Your task to perform on an android device: delete browsing data in the chrome app Image 0: 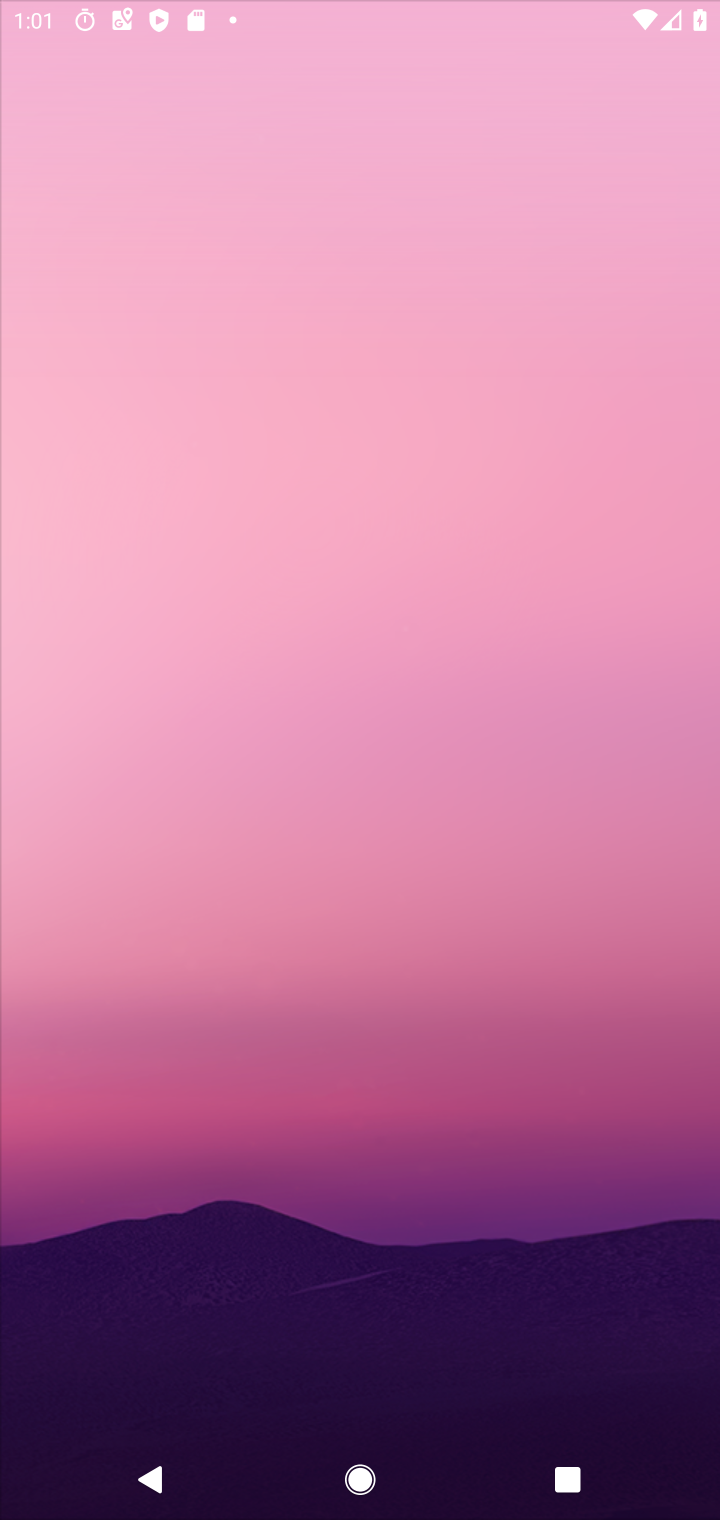
Step 0: press home button
Your task to perform on an android device: delete browsing data in the chrome app Image 1: 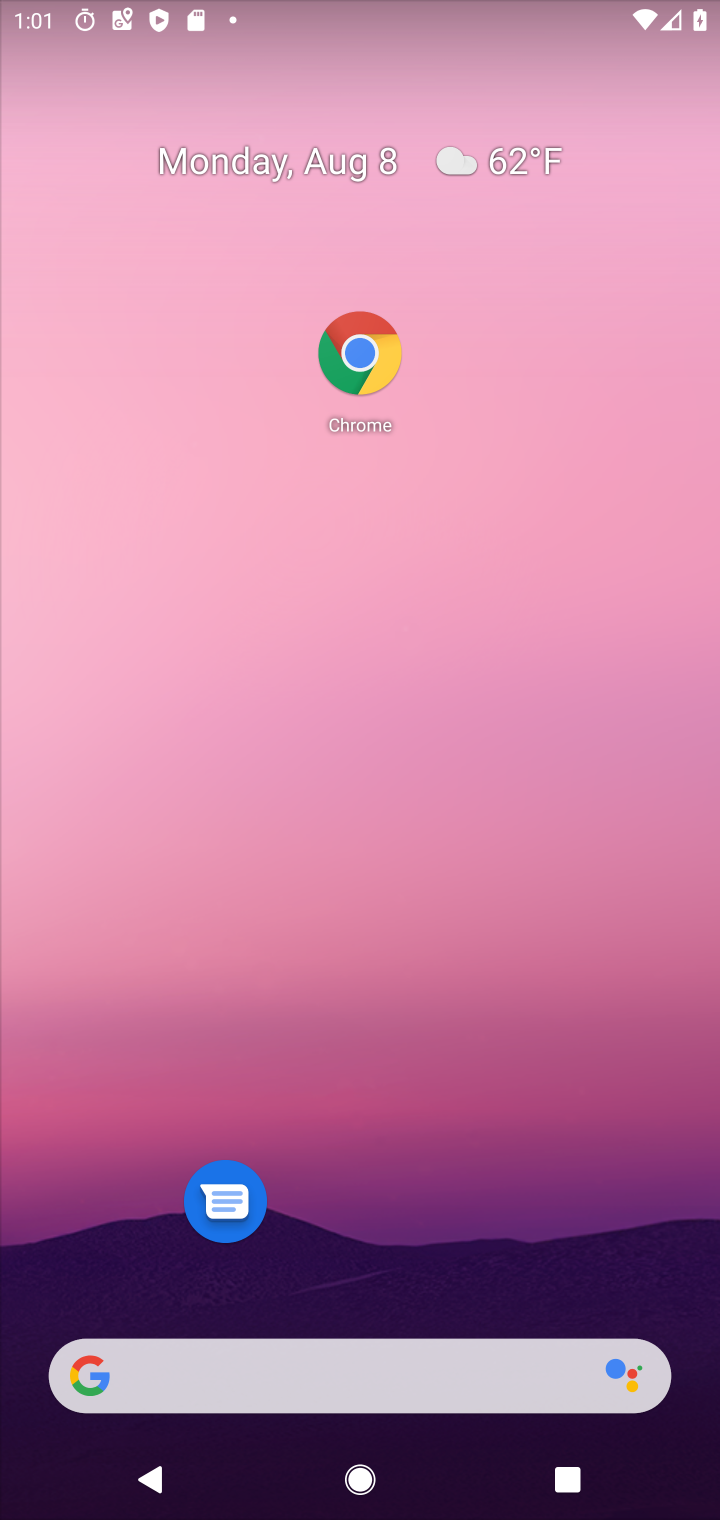
Step 1: drag from (453, 1339) to (316, 403)
Your task to perform on an android device: delete browsing data in the chrome app Image 2: 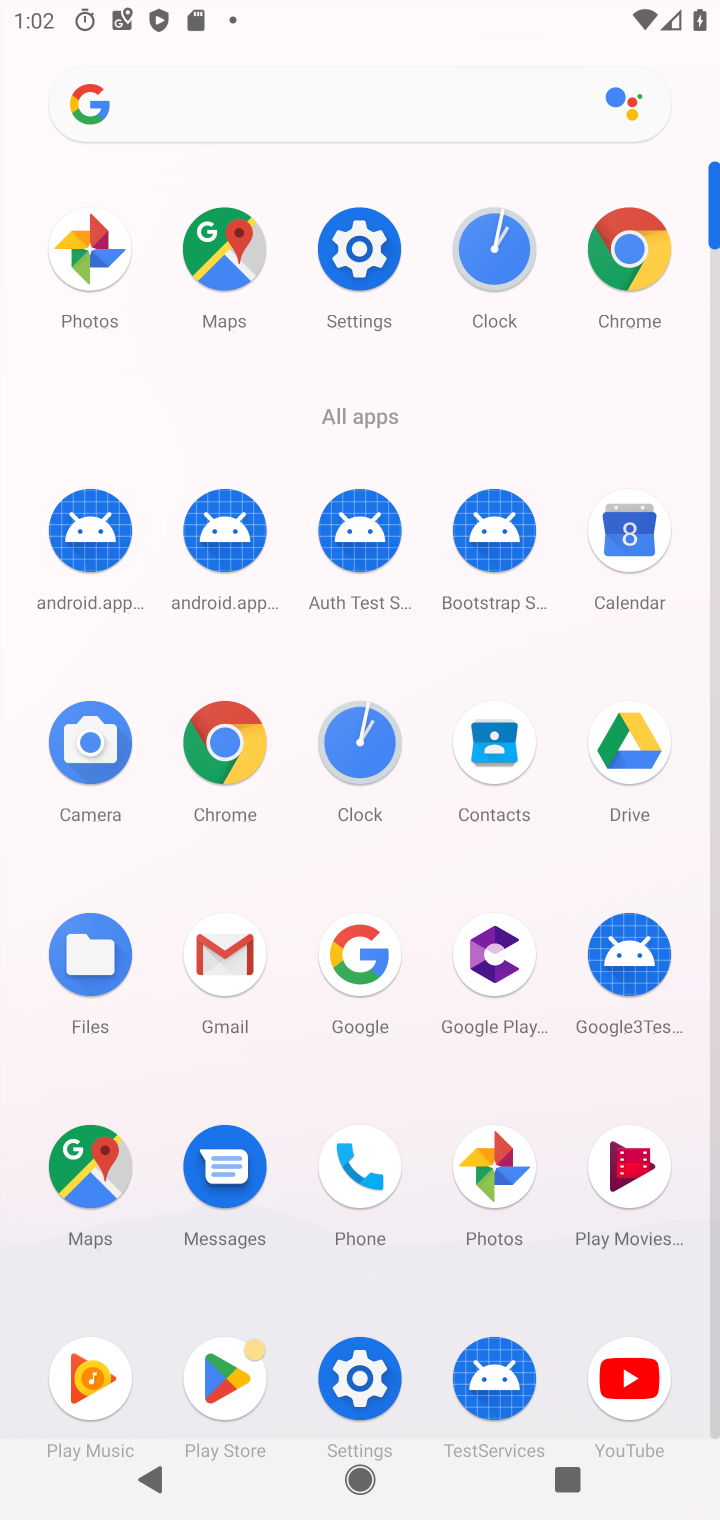
Step 2: click (650, 239)
Your task to perform on an android device: delete browsing data in the chrome app Image 3: 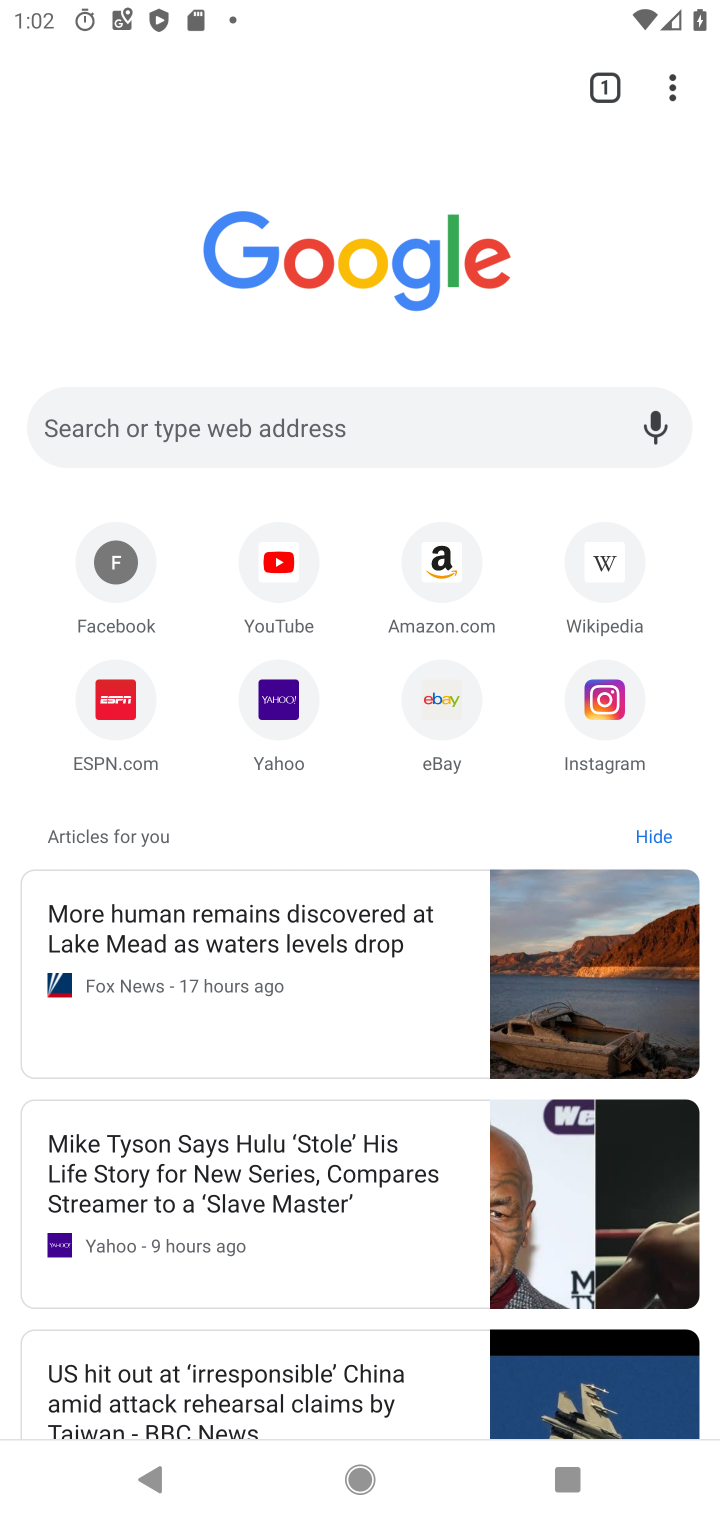
Step 3: click (674, 101)
Your task to perform on an android device: delete browsing data in the chrome app Image 4: 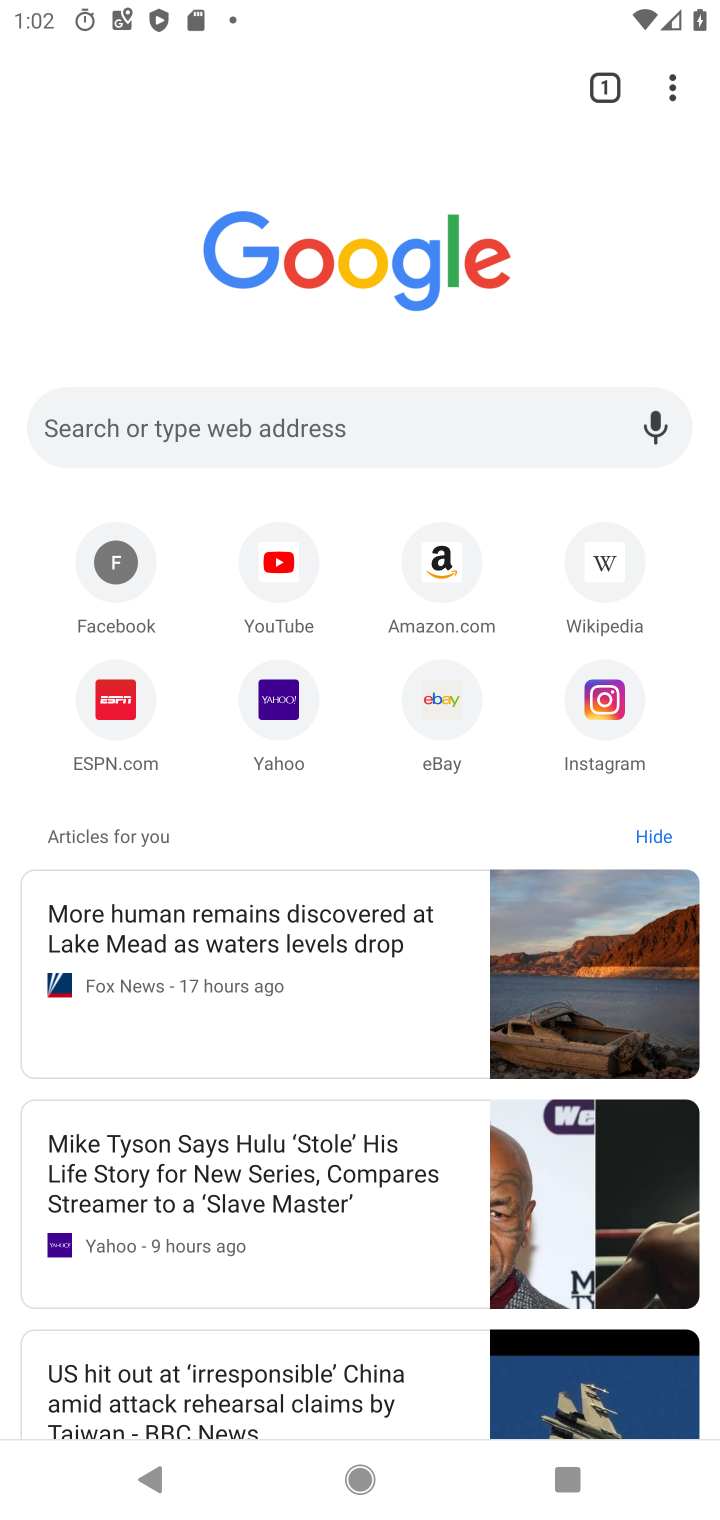
Step 4: click (664, 90)
Your task to perform on an android device: delete browsing data in the chrome app Image 5: 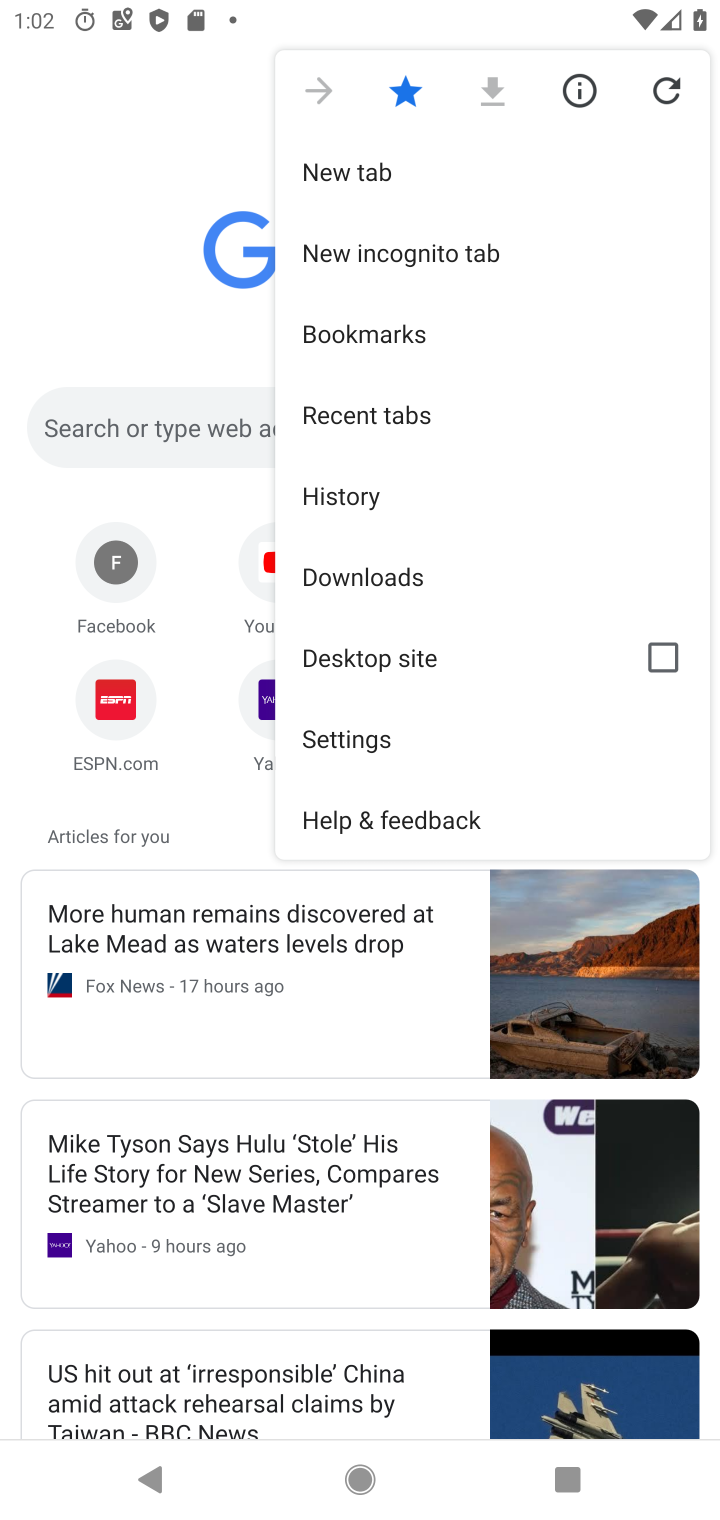
Step 5: click (371, 729)
Your task to perform on an android device: delete browsing data in the chrome app Image 6: 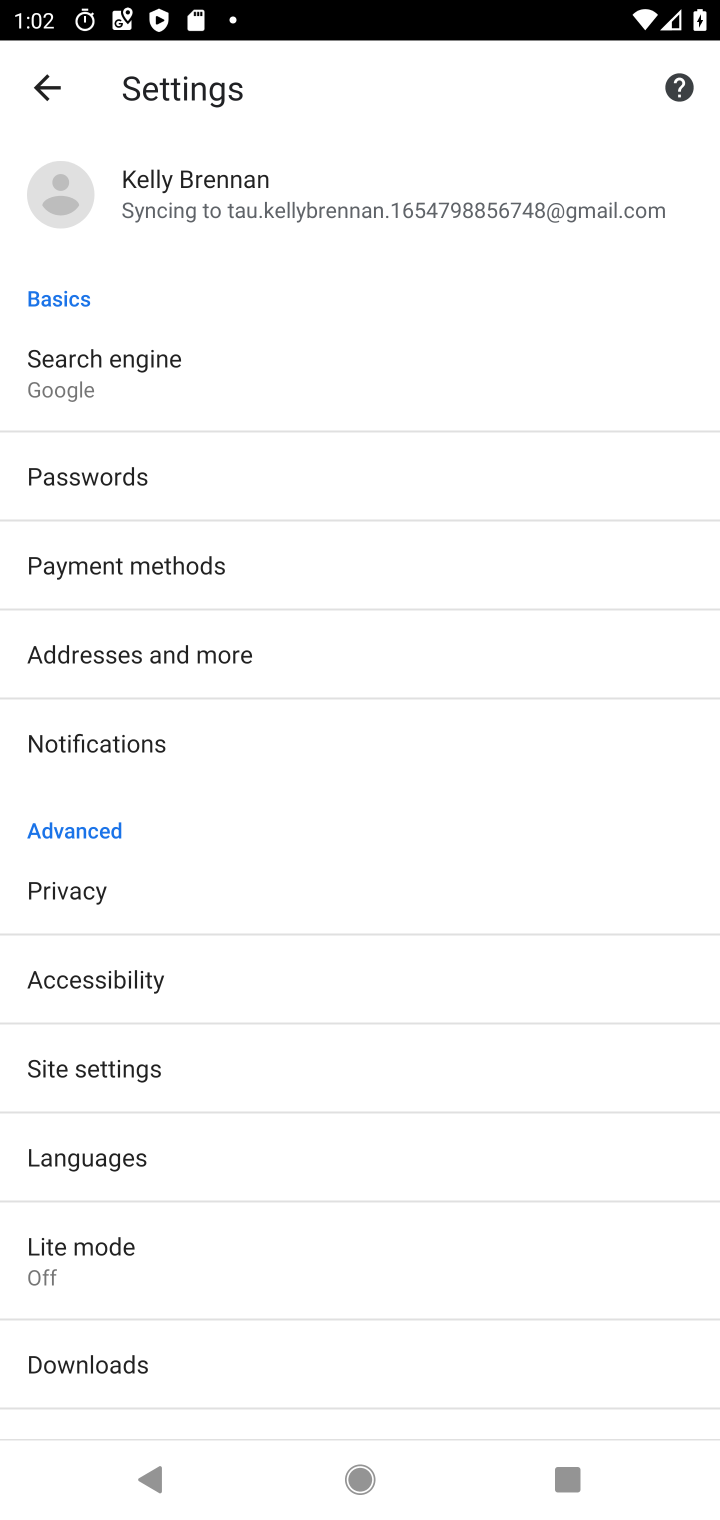
Step 6: click (125, 890)
Your task to perform on an android device: delete browsing data in the chrome app Image 7: 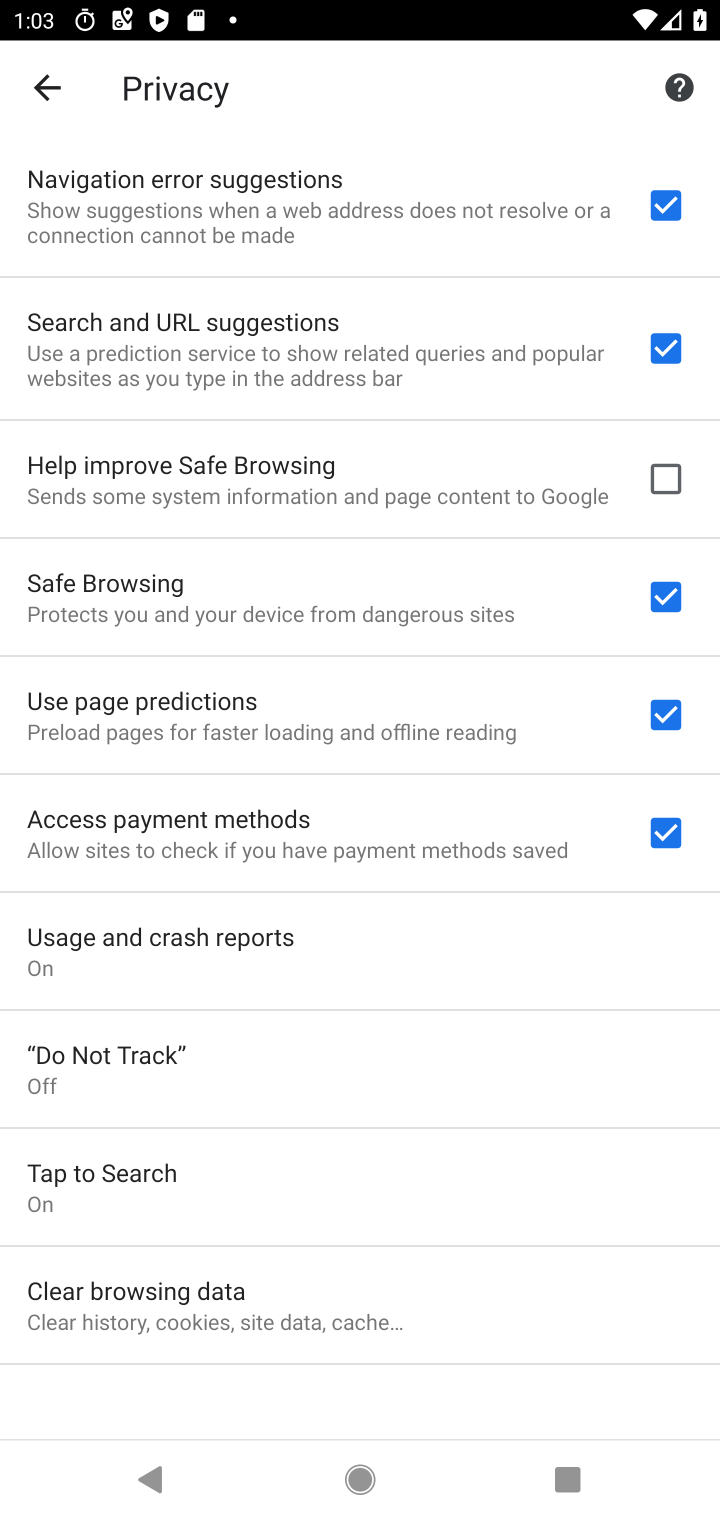
Step 7: click (213, 1280)
Your task to perform on an android device: delete browsing data in the chrome app Image 8: 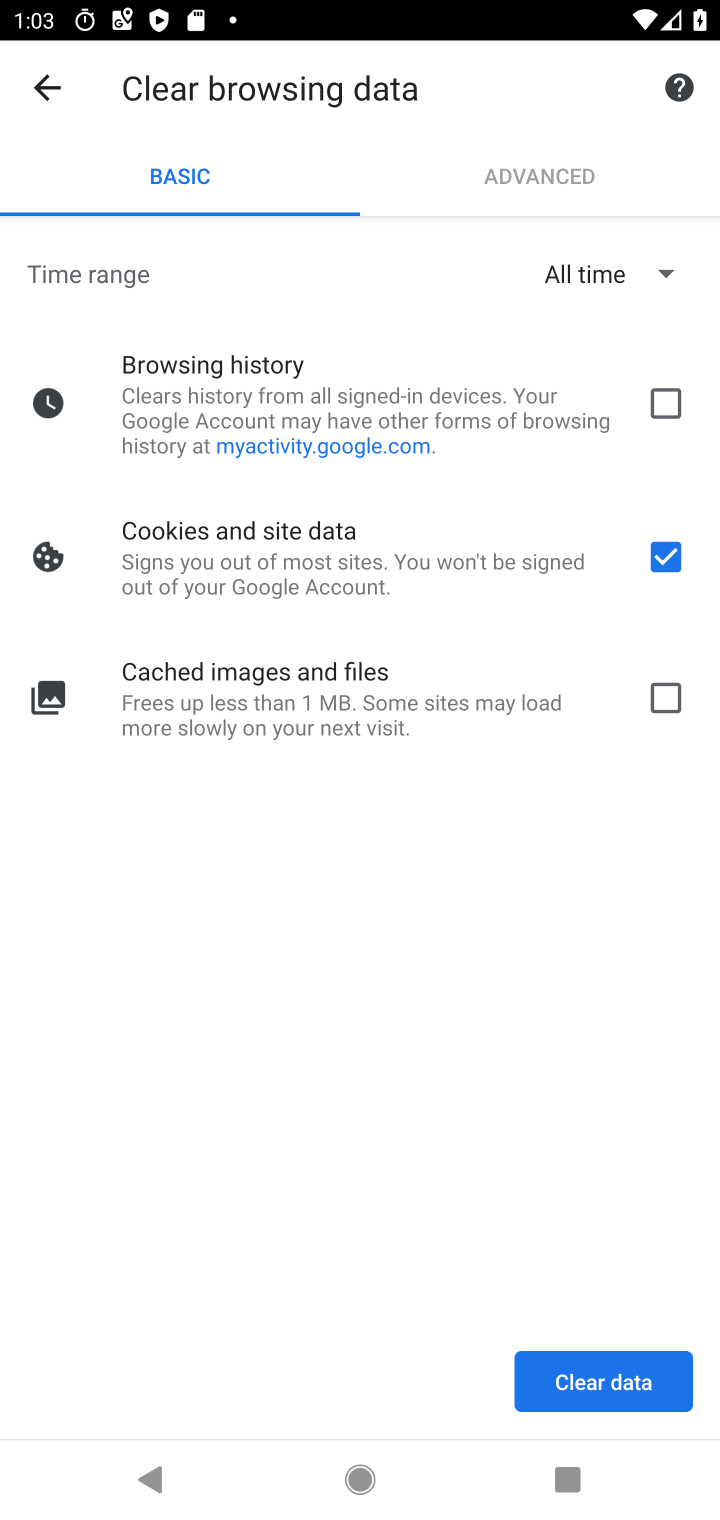
Step 8: click (652, 395)
Your task to perform on an android device: delete browsing data in the chrome app Image 9: 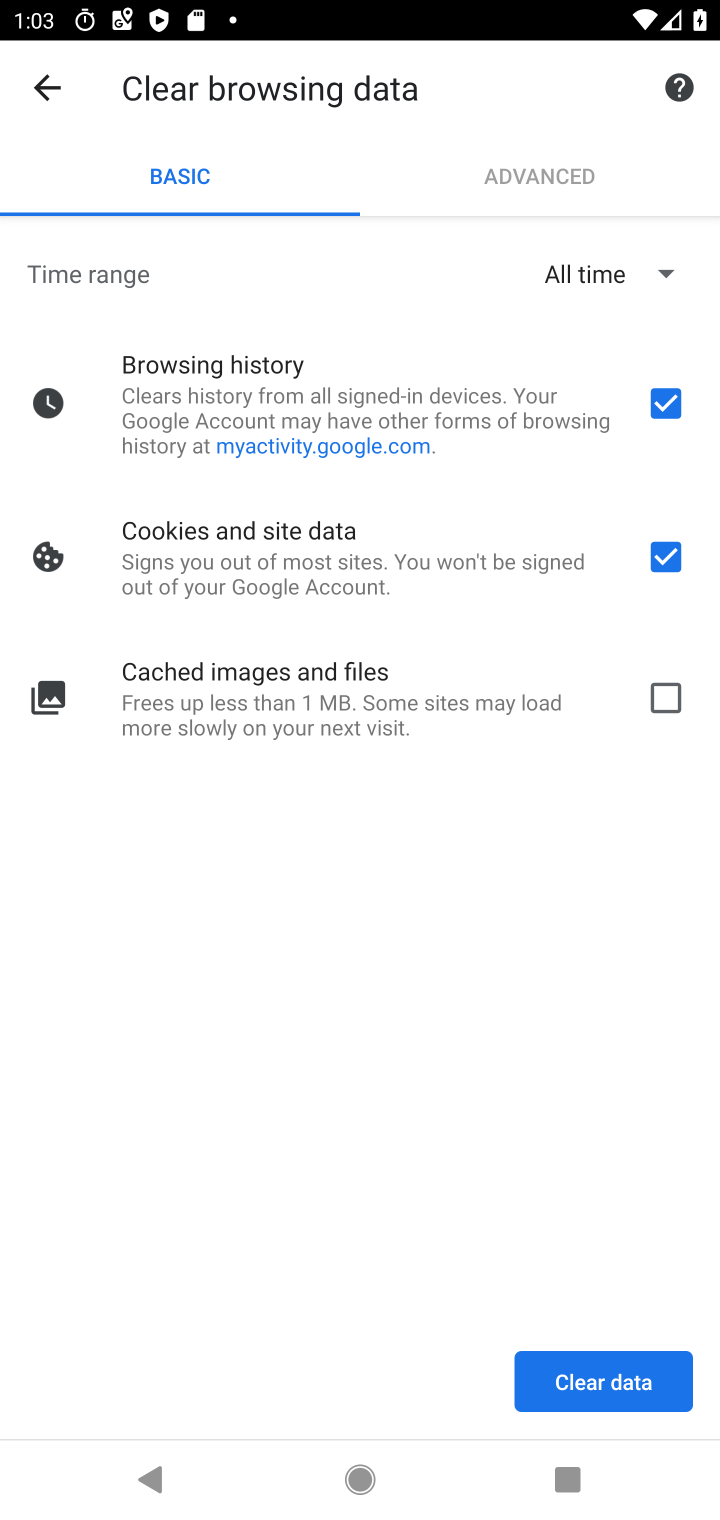
Step 9: click (632, 1384)
Your task to perform on an android device: delete browsing data in the chrome app Image 10: 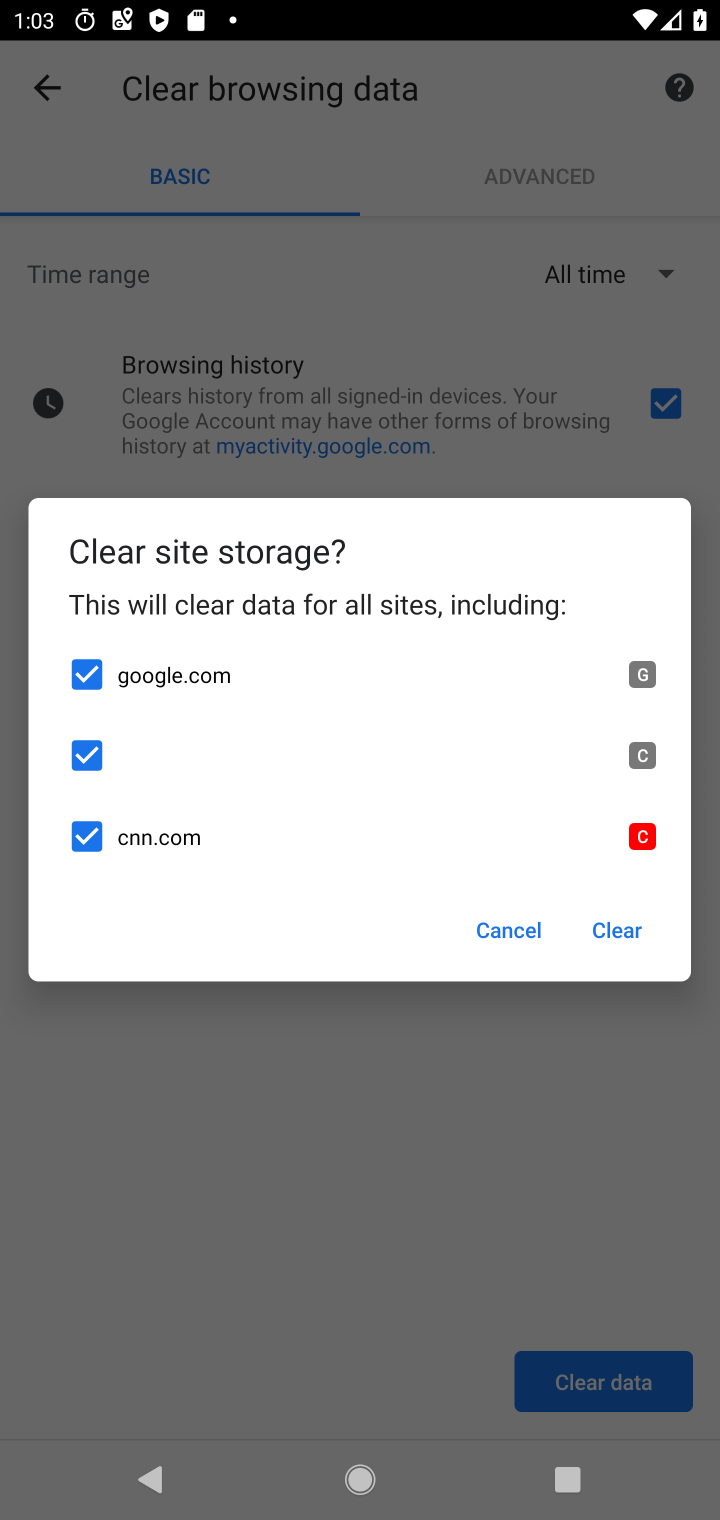
Step 10: click (626, 905)
Your task to perform on an android device: delete browsing data in the chrome app Image 11: 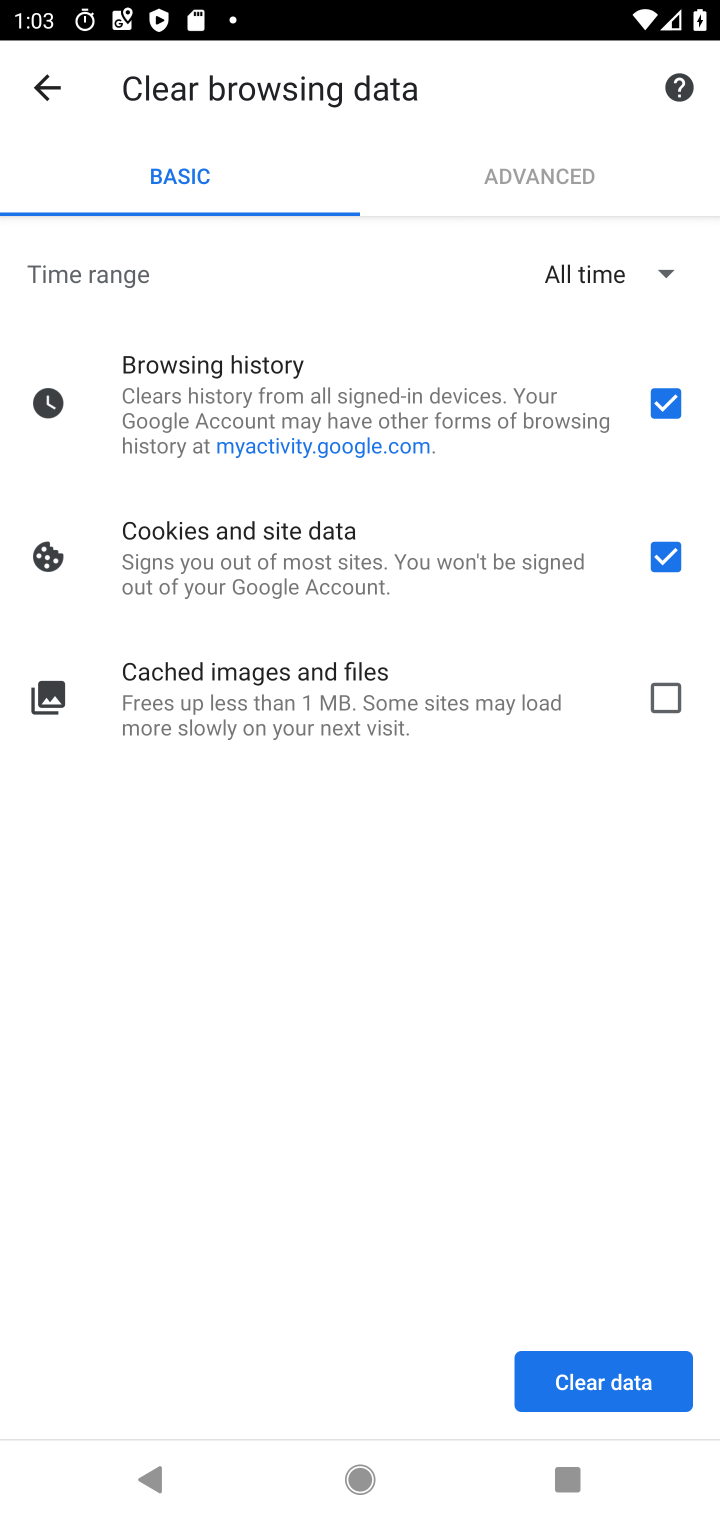
Step 11: task complete